Your task to perform on an android device: turn off data saver in the chrome app Image 0: 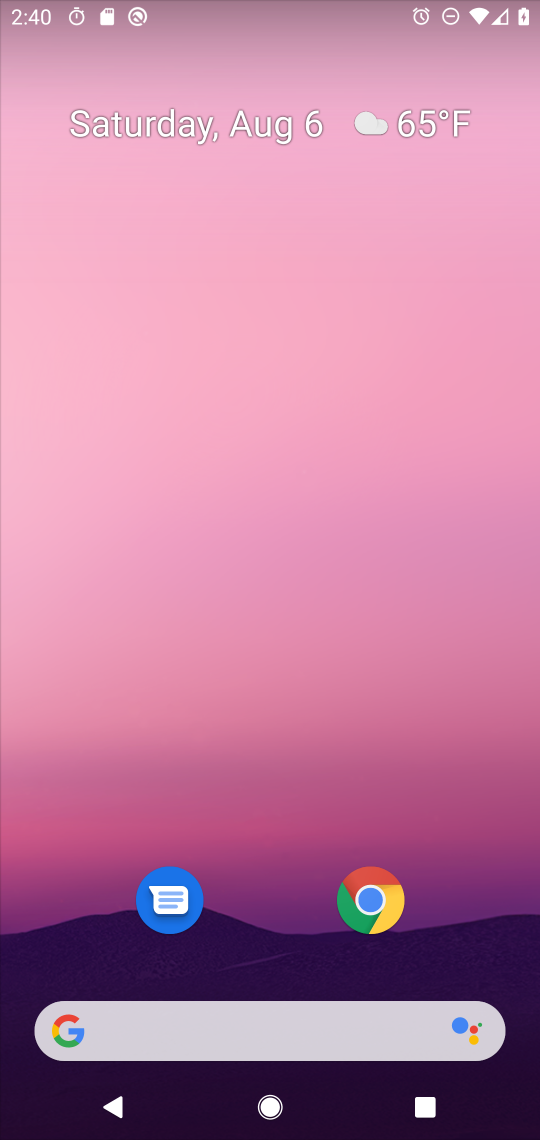
Step 0: click (366, 906)
Your task to perform on an android device: turn off data saver in the chrome app Image 1: 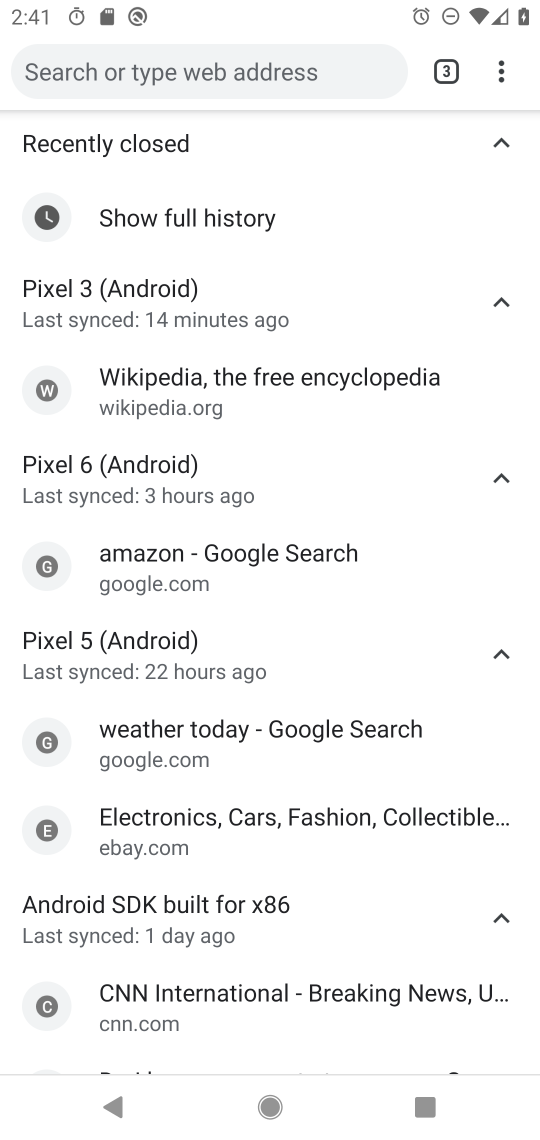
Step 1: click (497, 81)
Your task to perform on an android device: turn off data saver in the chrome app Image 2: 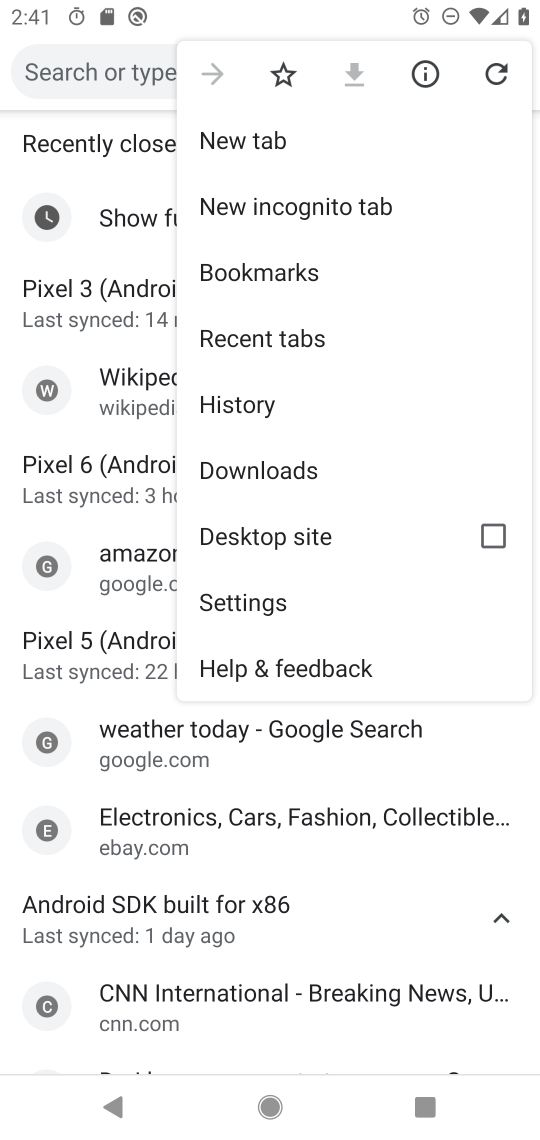
Step 2: click (234, 598)
Your task to perform on an android device: turn off data saver in the chrome app Image 3: 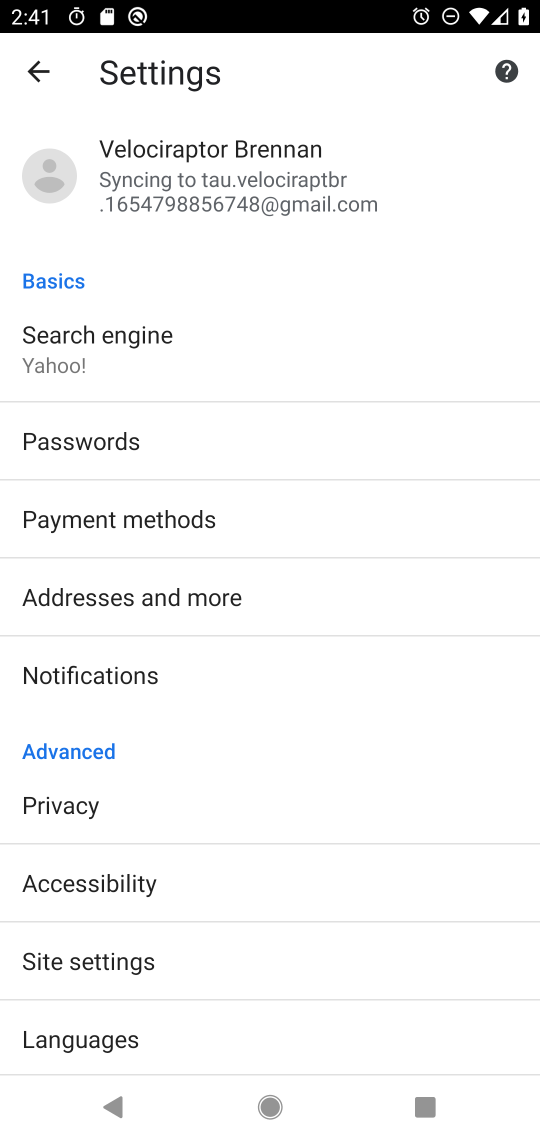
Step 3: drag from (108, 1016) to (112, 598)
Your task to perform on an android device: turn off data saver in the chrome app Image 4: 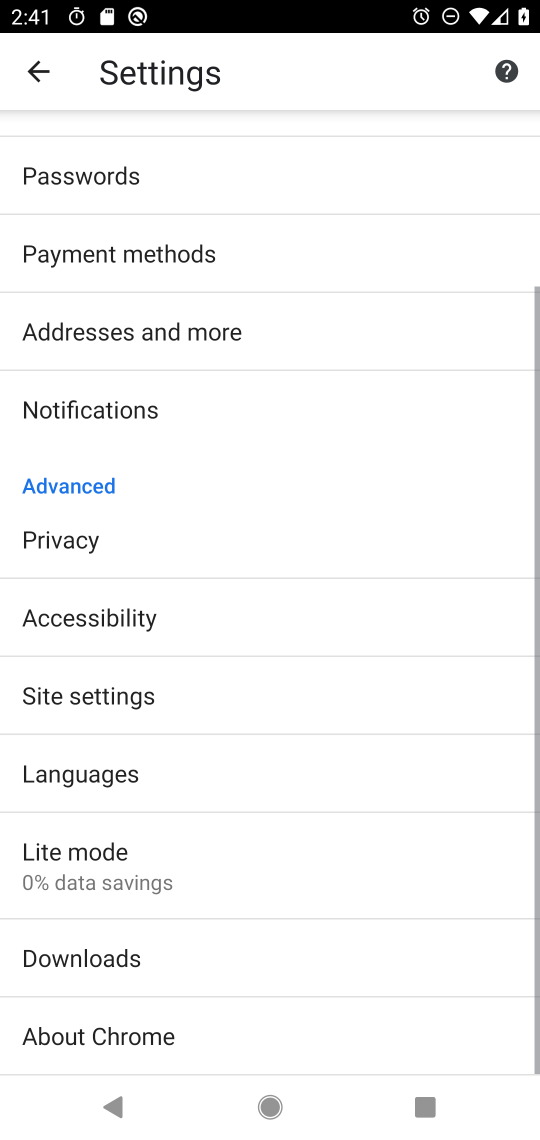
Step 4: click (87, 853)
Your task to perform on an android device: turn off data saver in the chrome app Image 5: 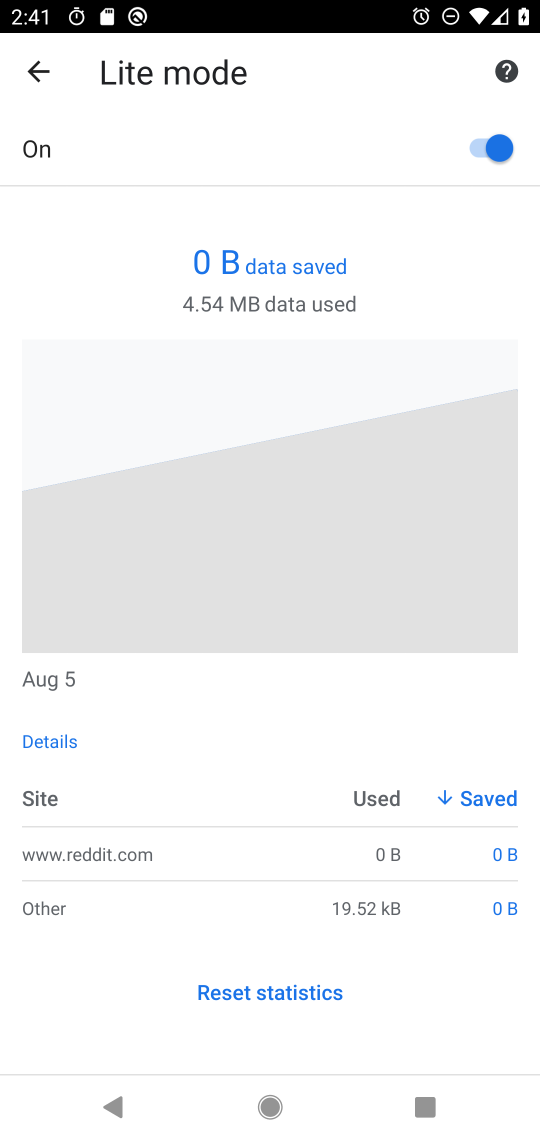
Step 5: click (498, 144)
Your task to perform on an android device: turn off data saver in the chrome app Image 6: 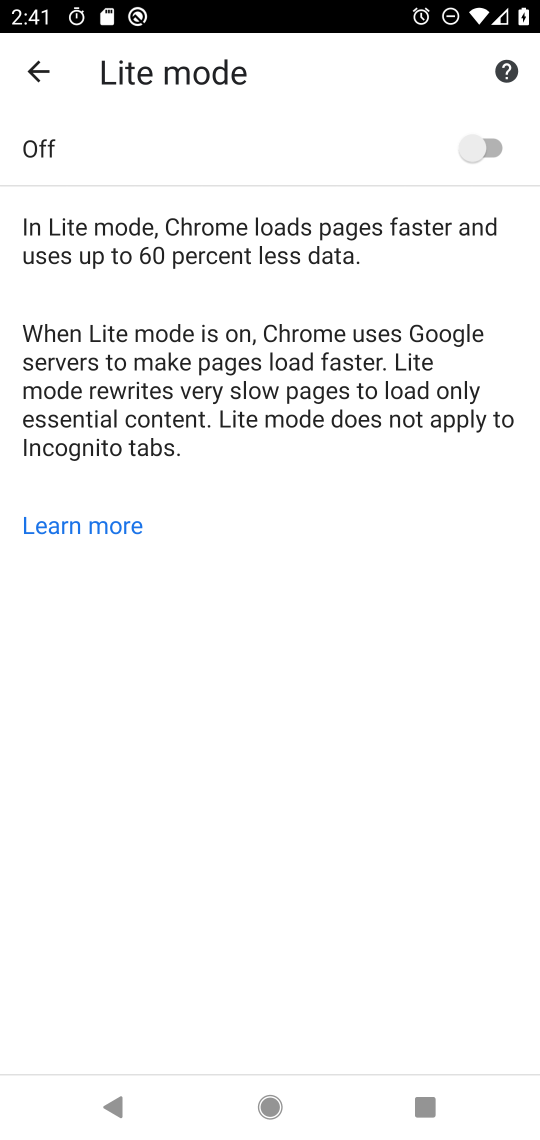
Step 6: task complete